Your task to perform on an android device: When is my next meeting? Image 0: 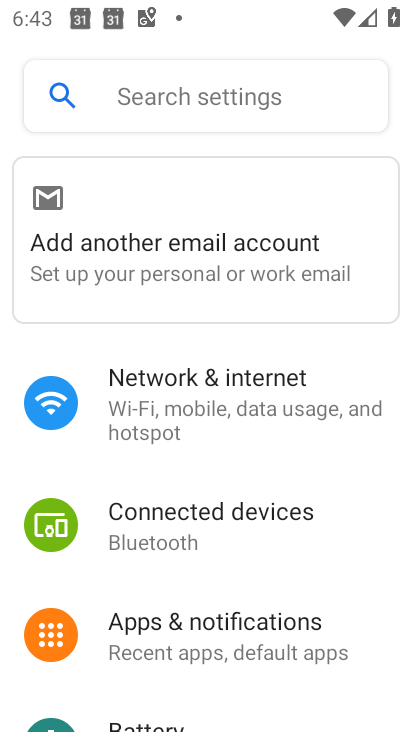
Step 0: press home button
Your task to perform on an android device: When is my next meeting? Image 1: 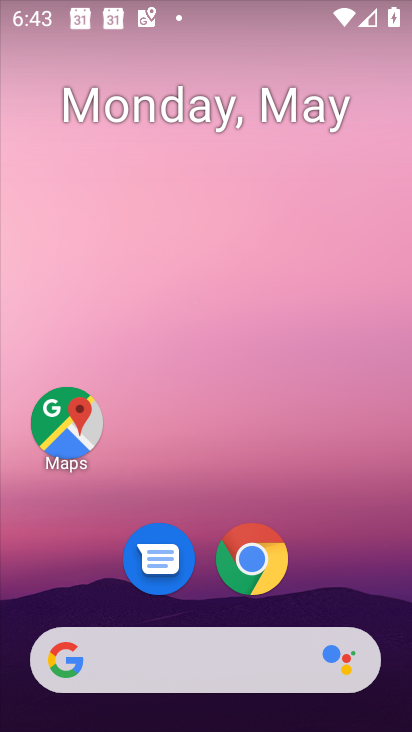
Step 1: drag from (372, 666) to (296, 53)
Your task to perform on an android device: When is my next meeting? Image 2: 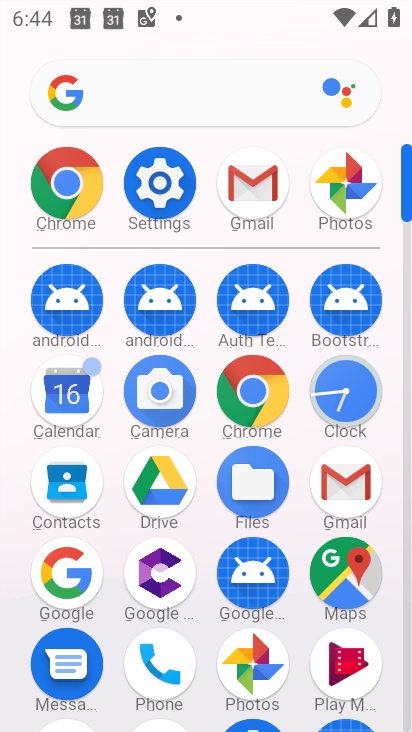
Step 2: click (69, 399)
Your task to perform on an android device: When is my next meeting? Image 3: 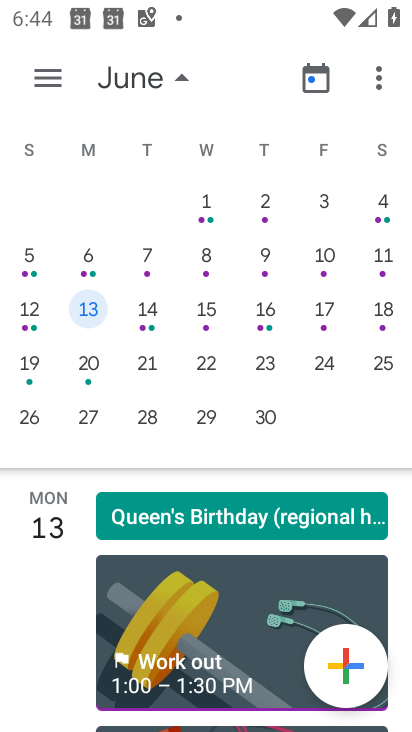
Step 3: click (47, 79)
Your task to perform on an android device: When is my next meeting? Image 4: 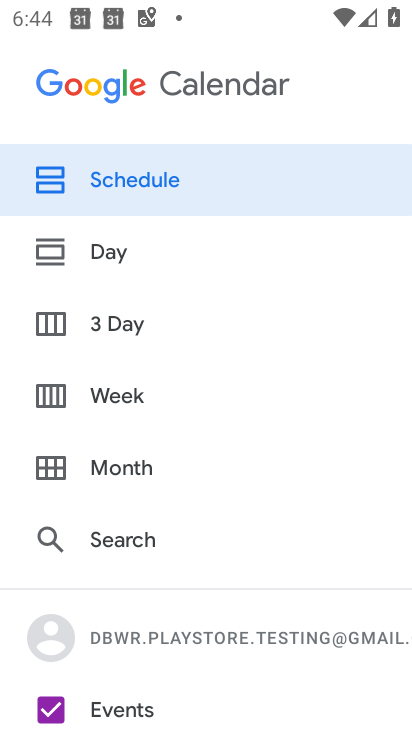
Step 4: click (72, 173)
Your task to perform on an android device: When is my next meeting? Image 5: 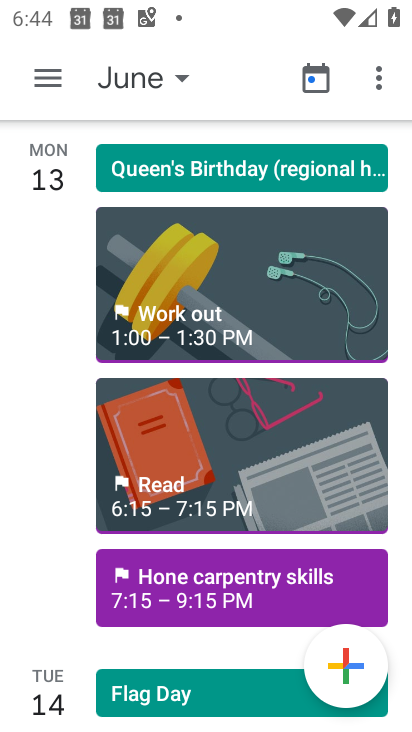
Step 5: task complete